Your task to perform on an android device: How much does a 2x4x8 board cost at Lowes? Image 0: 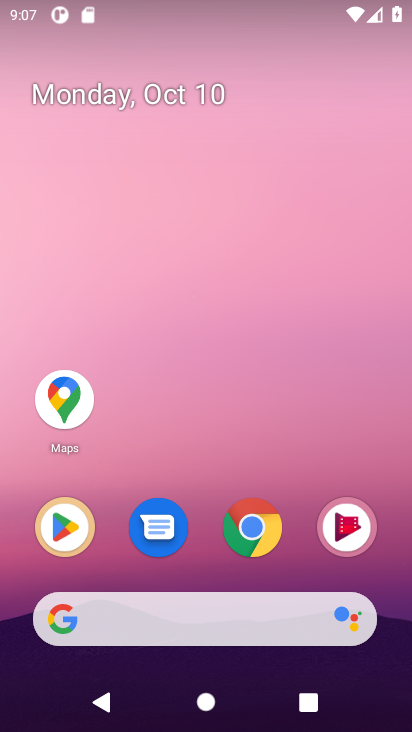
Step 0: click (243, 530)
Your task to perform on an android device: How much does a 2x4x8 board cost at Lowes? Image 1: 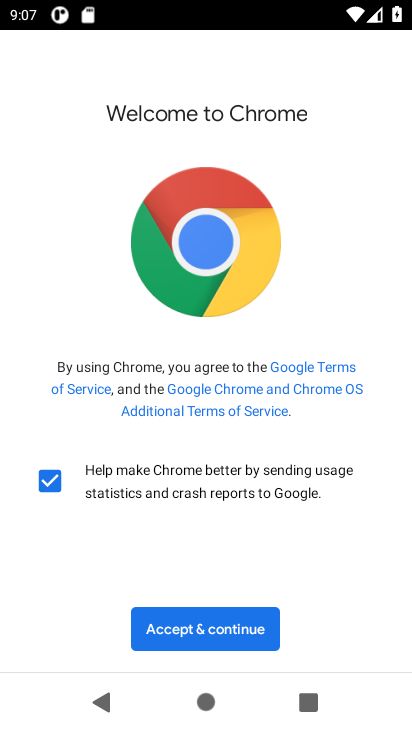
Step 1: click (237, 632)
Your task to perform on an android device: How much does a 2x4x8 board cost at Lowes? Image 2: 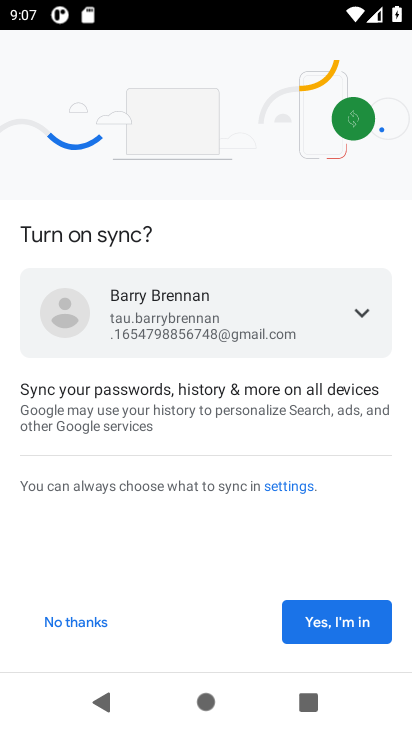
Step 2: click (358, 625)
Your task to perform on an android device: How much does a 2x4x8 board cost at Lowes? Image 3: 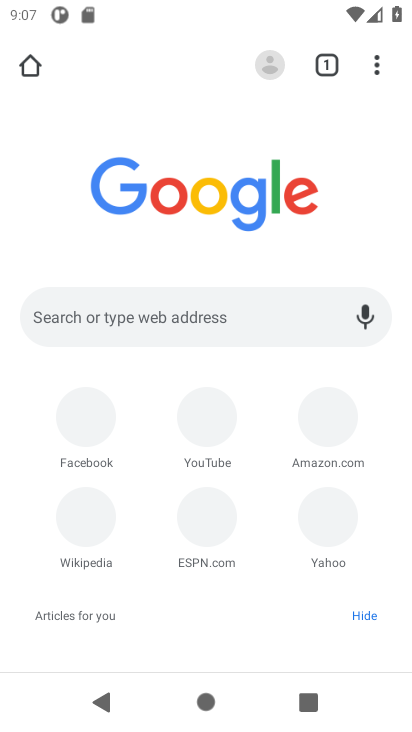
Step 3: click (240, 317)
Your task to perform on an android device: How much does a 2x4x8 board cost at Lowes? Image 4: 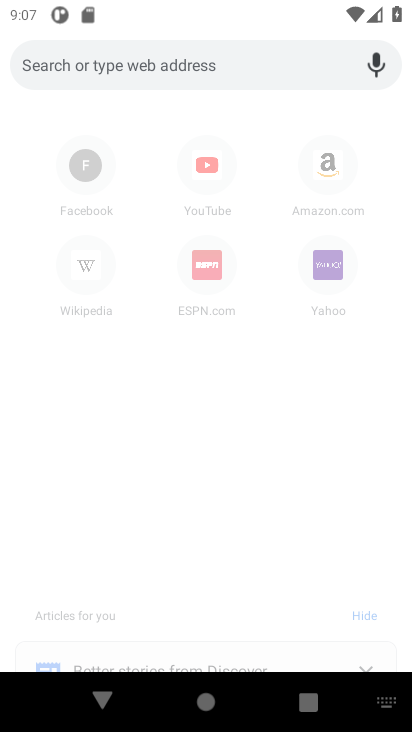
Step 4: type "How much does a 2x4x8 board cost at Lowes?"
Your task to perform on an android device: How much does a 2x4x8 board cost at Lowes? Image 5: 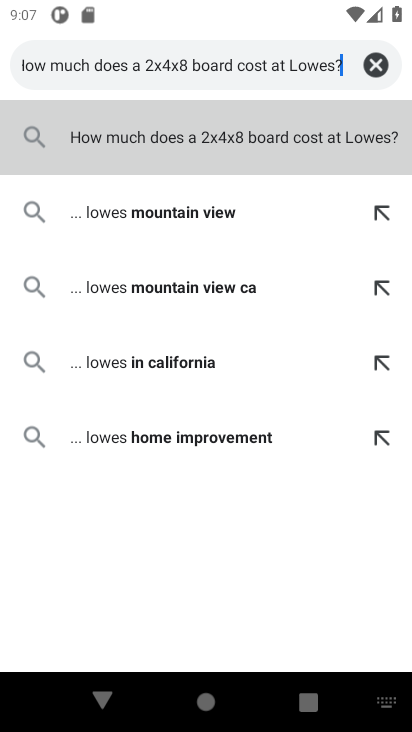
Step 5: press enter
Your task to perform on an android device: How much does a 2x4x8 board cost at Lowes? Image 6: 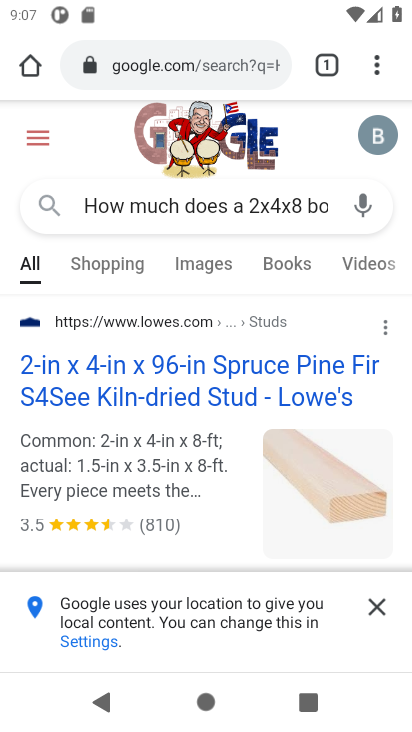
Step 6: click (170, 404)
Your task to perform on an android device: How much does a 2x4x8 board cost at Lowes? Image 7: 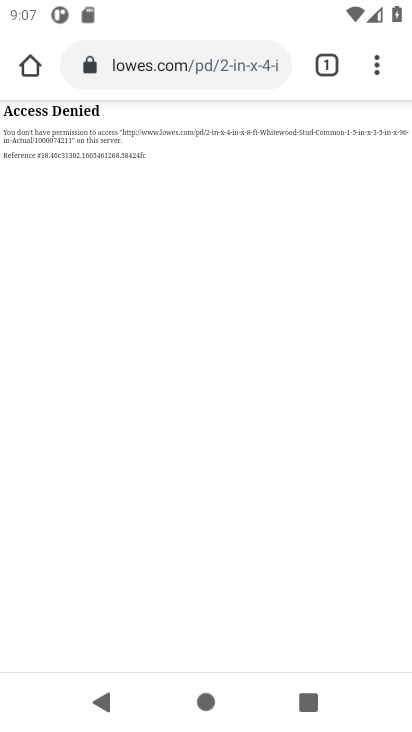
Step 7: press back button
Your task to perform on an android device: How much does a 2x4x8 board cost at Lowes? Image 8: 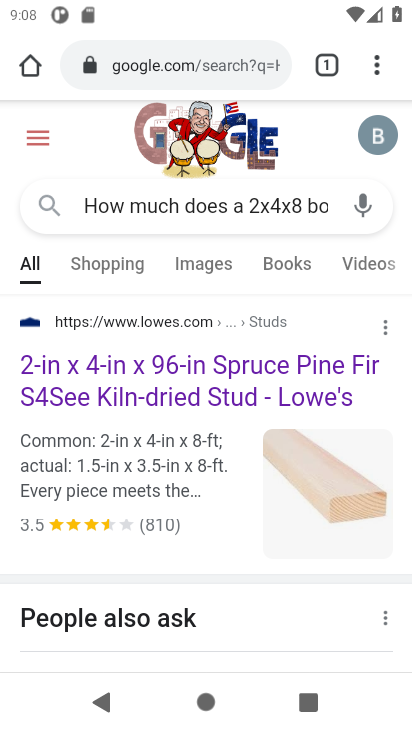
Step 8: drag from (101, 395) to (85, 276)
Your task to perform on an android device: How much does a 2x4x8 board cost at Lowes? Image 9: 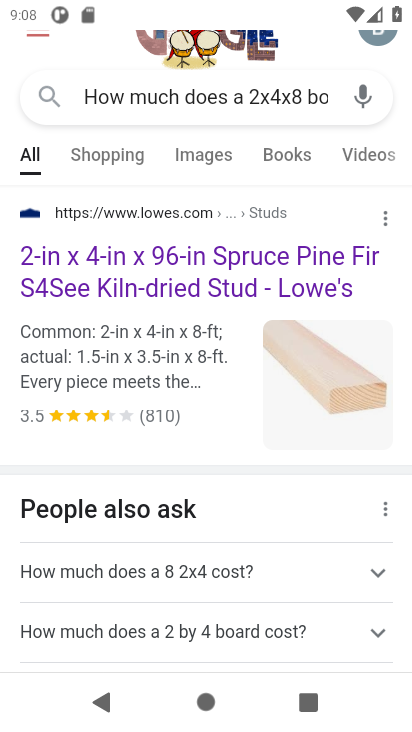
Step 9: drag from (70, 266) to (13, 27)
Your task to perform on an android device: How much does a 2x4x8 board cost at Lowes? Image 10: 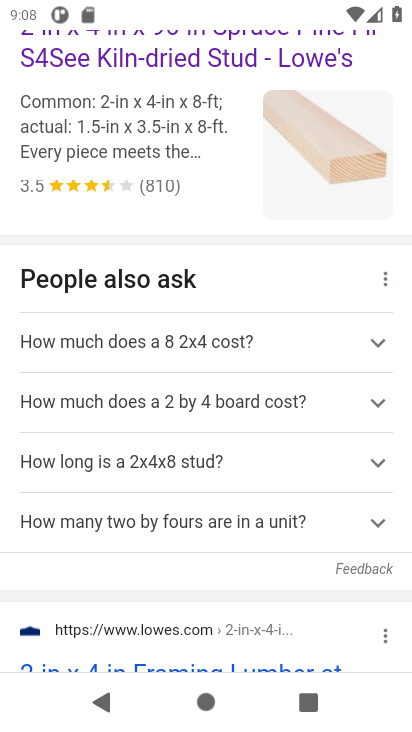
Step 10: click (92, 208)
Your task to perform on an android device: How much does a 2x4x8 board cost at Lowes? Image 11: 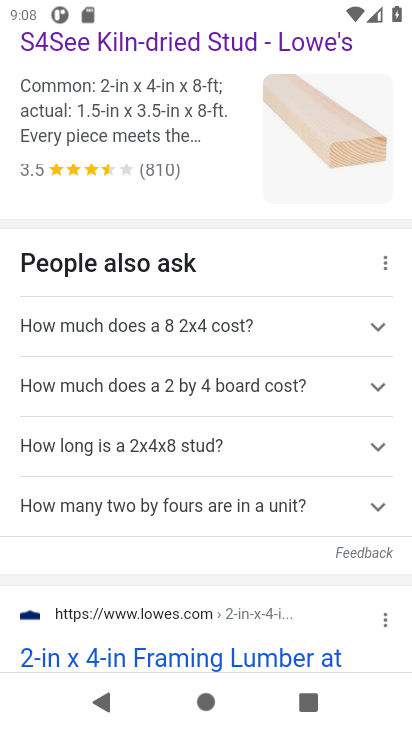
Step 11: click (134, 650)
Your task to perform on an android device: How much does a 2x4x8 board cost at Lowes? Image 12: 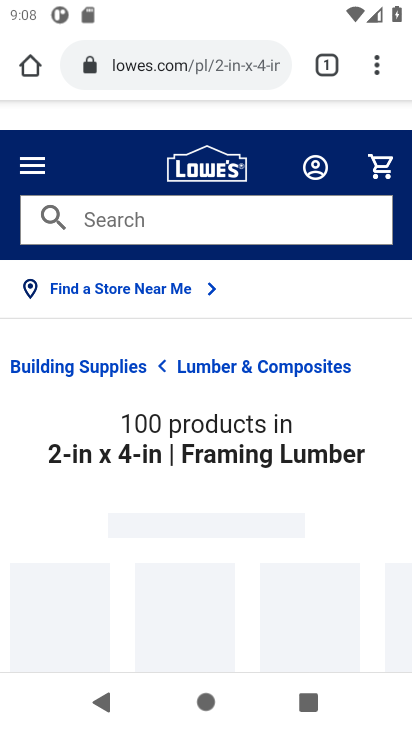
Step 12: drag from (84, 373) to (78, 315)
Your task to perform on an android device: How much does a 2x4x8 board cost at Lowes? Image 13: 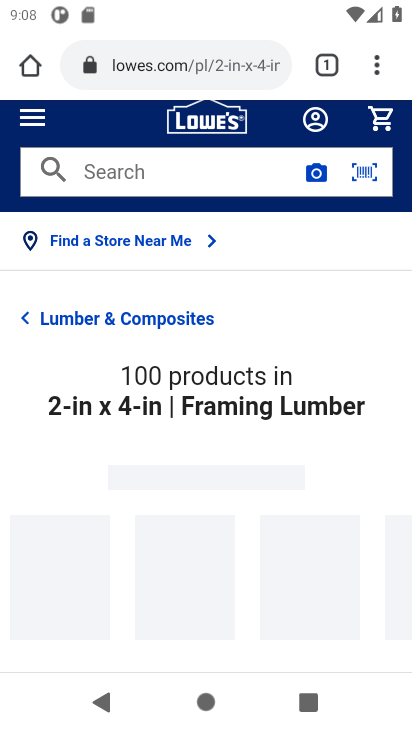
Step 13: drag from (103, 446) to (97, 340)
Your task to perform on an android device: How much does a 2x4x8 board cost at Lowes? Image 14: 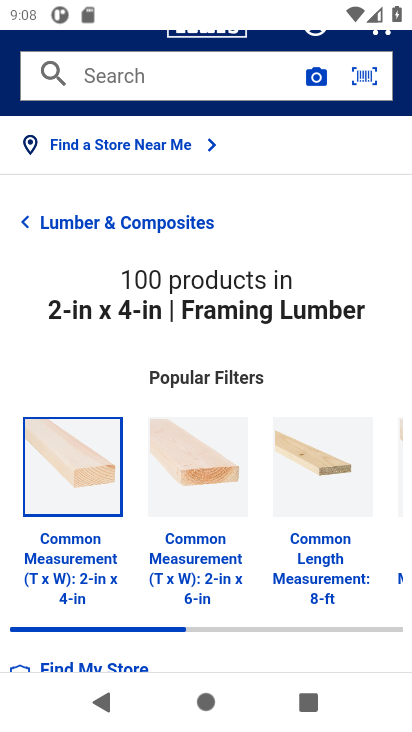
Step 14: drag from (125, 339) to (119, 285)
Your task to perform on an android device: How much does a 2x4x8 board cost at Lowes? Image 15: 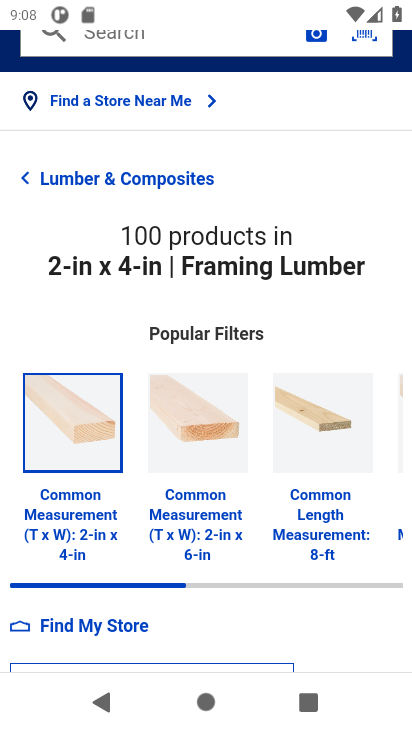
Step 15: drag from (117, 337) to (114, 272)
Your task to perform on an android device: How much does a 2x4x8 board cost at Lowes? Image 16: 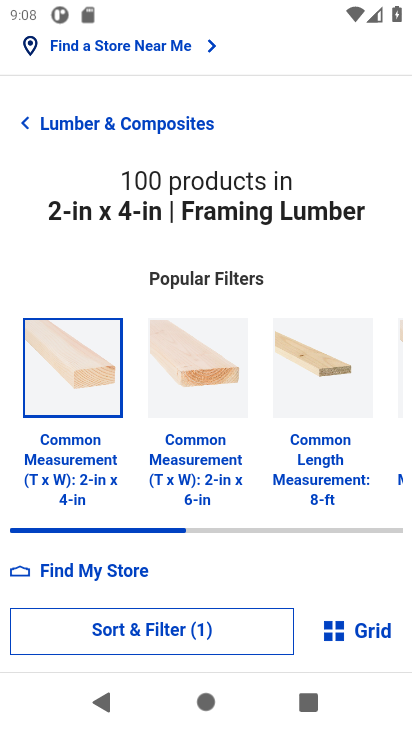
Step 16: click (152, 398)
Your task to perform on an android device: How much does a 2x4x8 board cost at Lowes? Image 17: 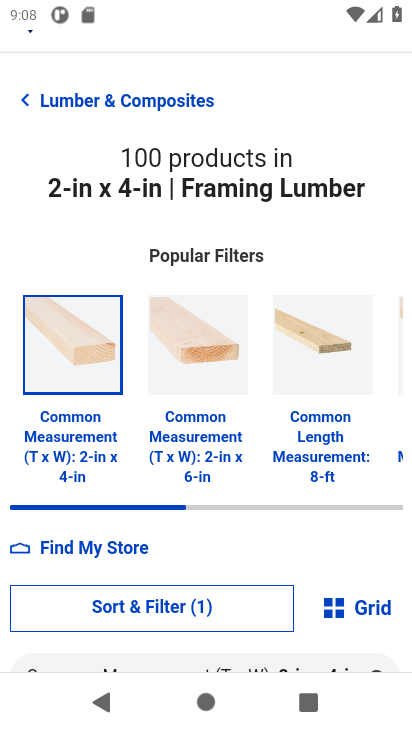
Step 17: drag from (174, 347) to (182, 223)
Your task to perform on an android device: How much does a 2x4x8 board cost at Lowes? Image 18: 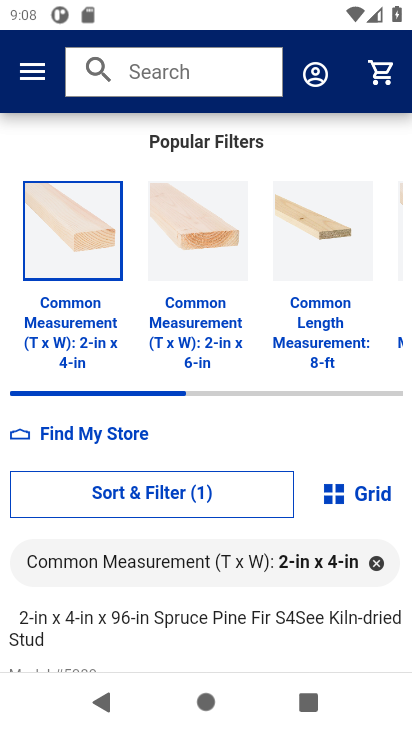
Step 18: click (188, 166)
Your task to perform on an android device: How much does a 2x4x8 board cost at Lowes? Image 19: 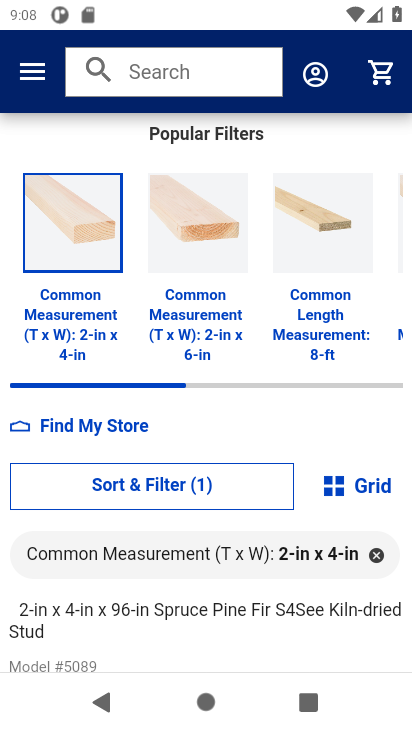
Step 19: drag from (208, 235) to (209, 138)
Your task to perform on an android device: How much does a 2x4x8 board cost at Lowes? Image 20: 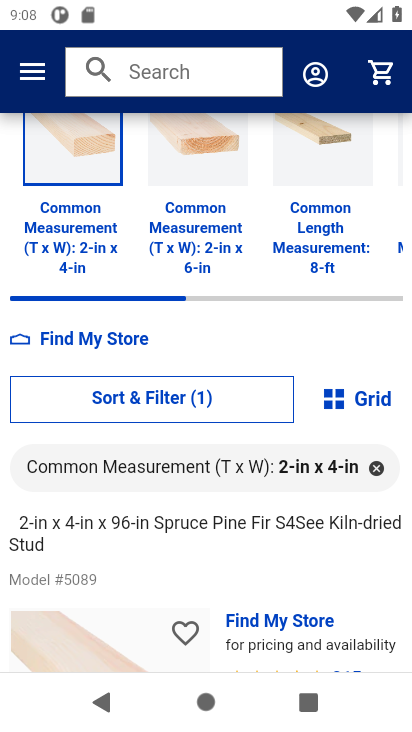
Step 20: drag from (216, 331) to (209, 236)
Your task to perform on an android device: How much does a 2x4x8 board cost at Lowes? Image 21: 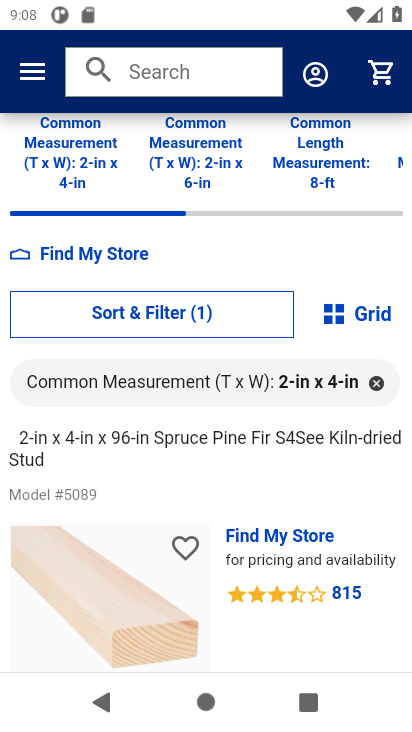
Step 21: drag from (214, 262) to (207, 208)
Your task to perform on an android device: How much does a 2x4x8 board cost at Lowes? Image 22: 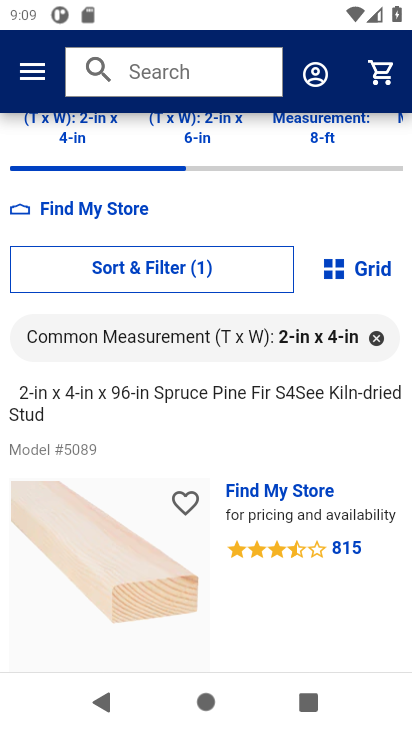
Step 22: drag from (214, 427) to (205, 247)
Your task to perform on an android device: How much does a 2x4x8 board cost at Lowes? Image 23: 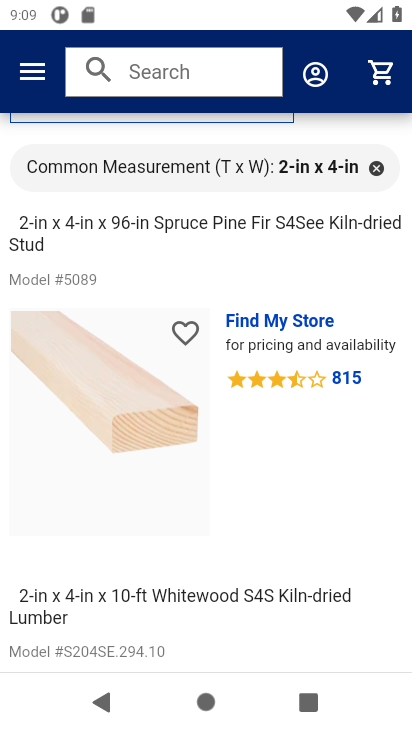
Step 23: drag from (247, 472) to (192, 195)
Your task to perform on an android device: How much does a 2x4x8 board cost at Lowes? Image 24: 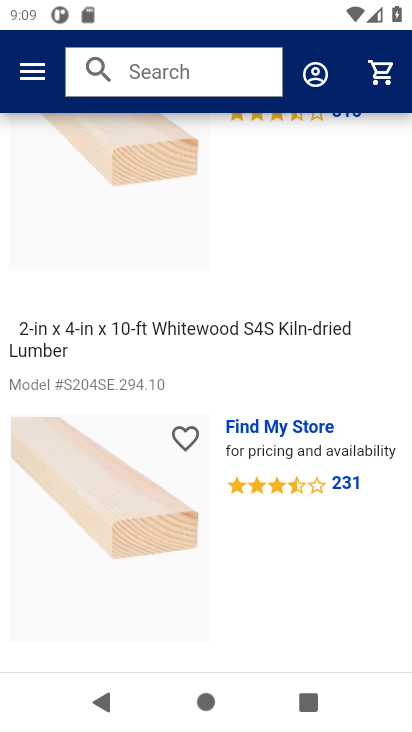
Step 24: drag from (245, 367) to (219, 217)
Your task to perform on an android device: How much does a 2x4x8 board cost at Lowes? Image 25: 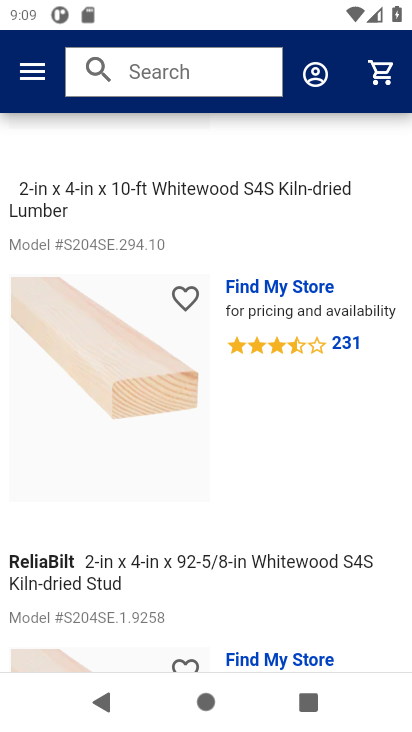
Step 25: drag from (252, 350) to (242, 282)
Your task to perform on an android device: How much does a 2x4x8 board cost at Lowes? Image 26: 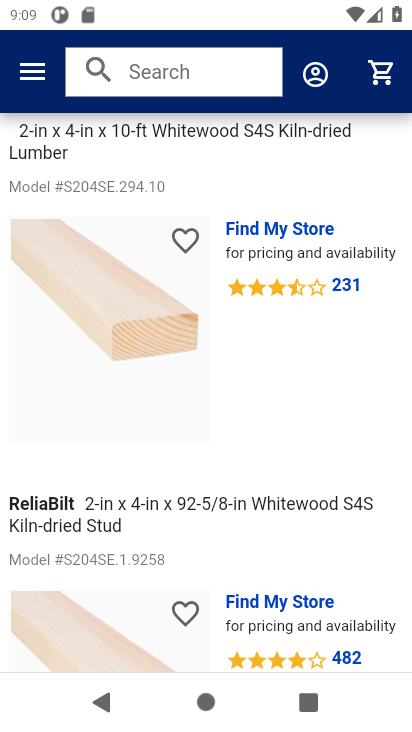
Step 26: drag from (245, 412) to (234, 340)
Your task to perform on an android device: How much does a 2x4x8 board cost at Lowes? Image 27: 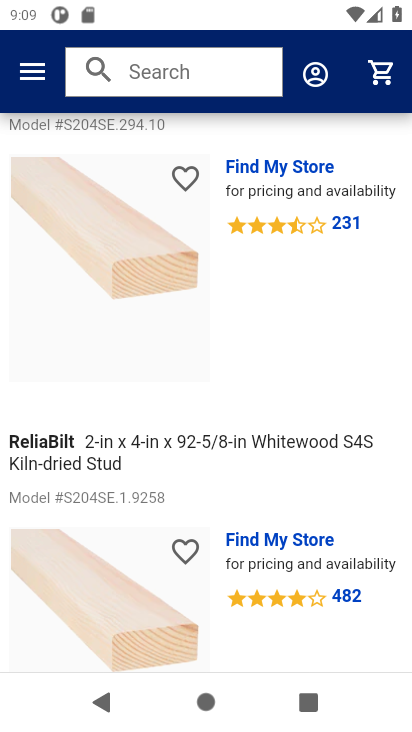
Step 27: click (245, 369)
Your task to perform on an android device: How much does a 2x4x8 board cost at Lowes? Image 28: 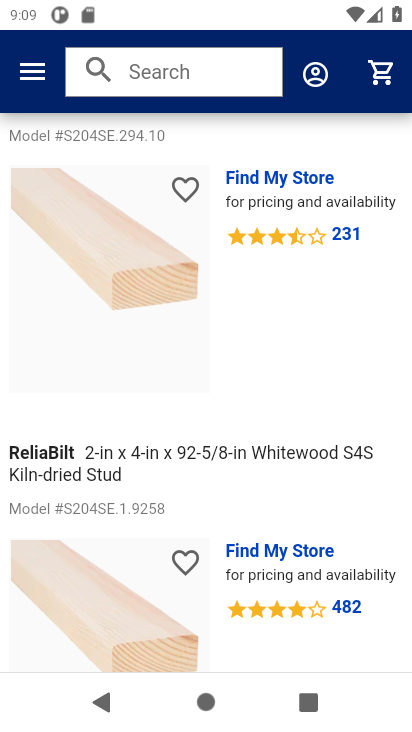
Step 28: drag from (253, 377) to (233, 268)
Your task to perform on an android device: How much does a 2x4x8 board cost at Lowes? Image 29: 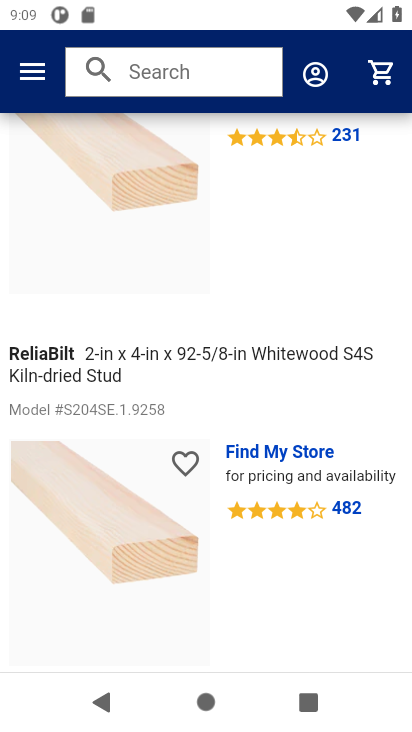
Step 29: drag from (275, 403) to (263, 357)
Your task to perform on an android device: How much does a 2x4x8 board cost at Lowes? Image 30: 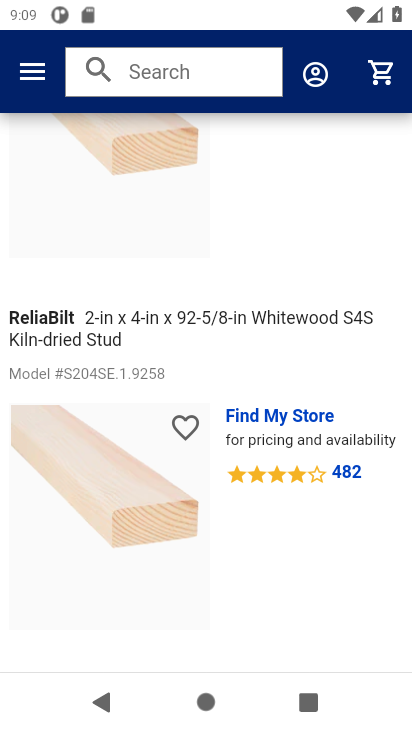
Step 30: click (214, 223)
Your task to perform on an android device: How much does a 2x4x8 board cost at Lowes? Image 31: 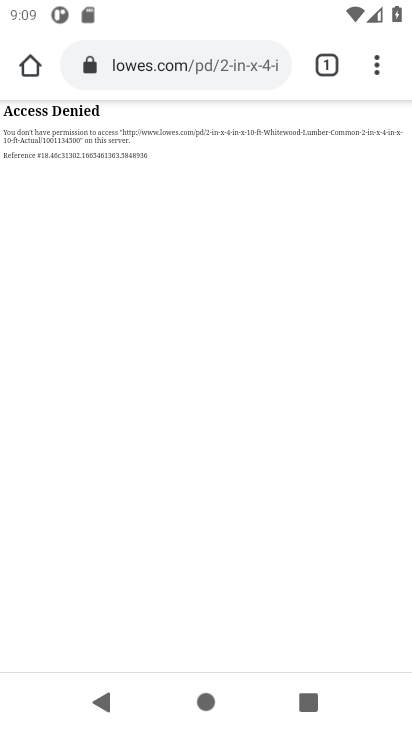
Step 31: press back button
Your task to perform on an android device: How much does a 2x4x8 board cost at Lowes? Image 32: 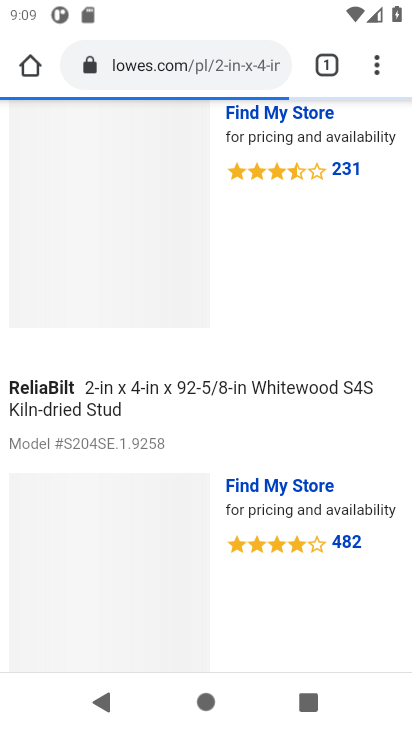
Step 32: drag from (298, 508) to (289, 337)
Your task to perform on an android device: How much does a 2x4x8 board cost at Lowes? Image 33: 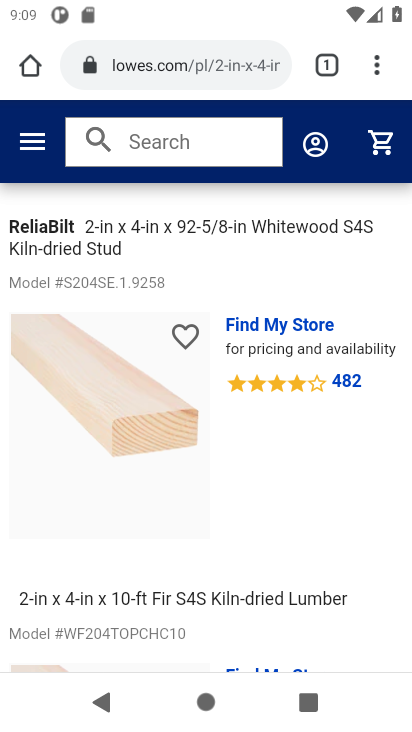
Step 33: drag from (257, 156) to (245, 91)
Your task to perform on an android device: How much does a 2x4x8 board cost at Lowes? Image 34: 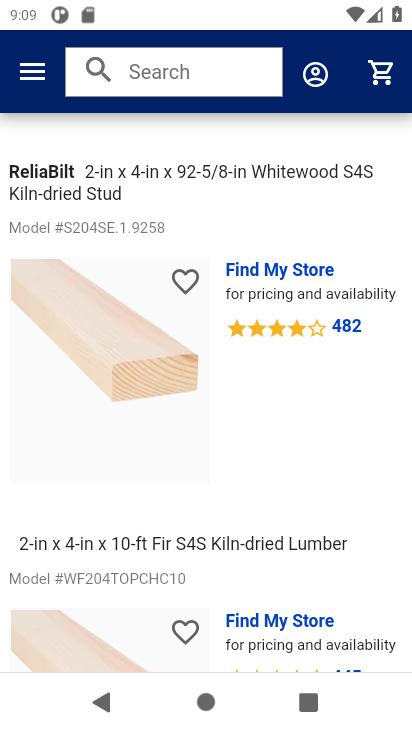
Step 34: drag from (247, 134) to (204, 28)
Your task to perform on an android device: How much does a 2x4x8 board cost at Lowes? Image 35: 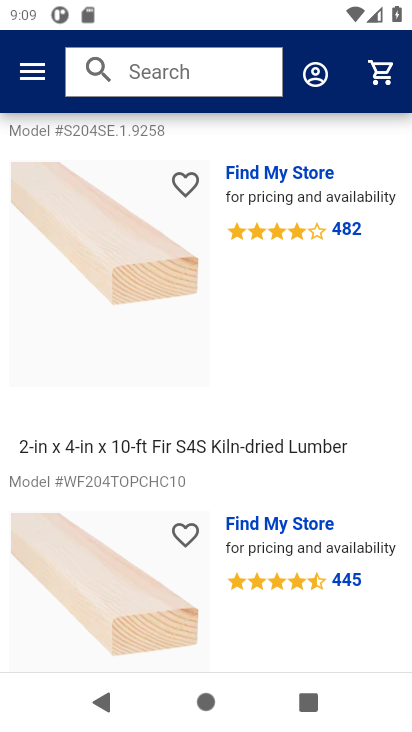
Step 35: click (182, 12)
Your task to perform on an android device: How much does a 2x4x8 board cost at Lowes? Image 36: 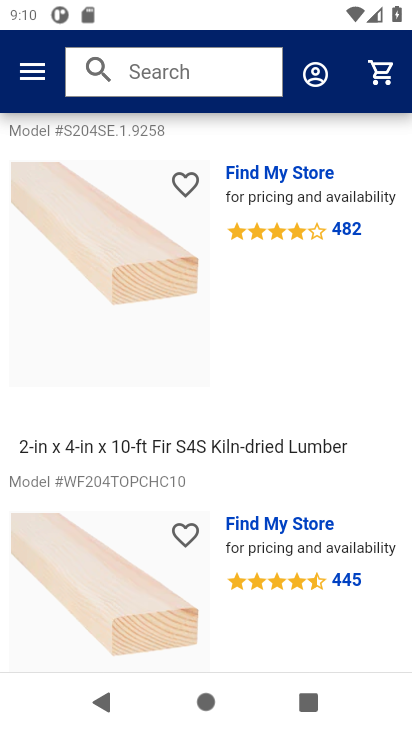
Step 36: task complete